Your task to perform on an android device: toggle airplane mode Image 0: 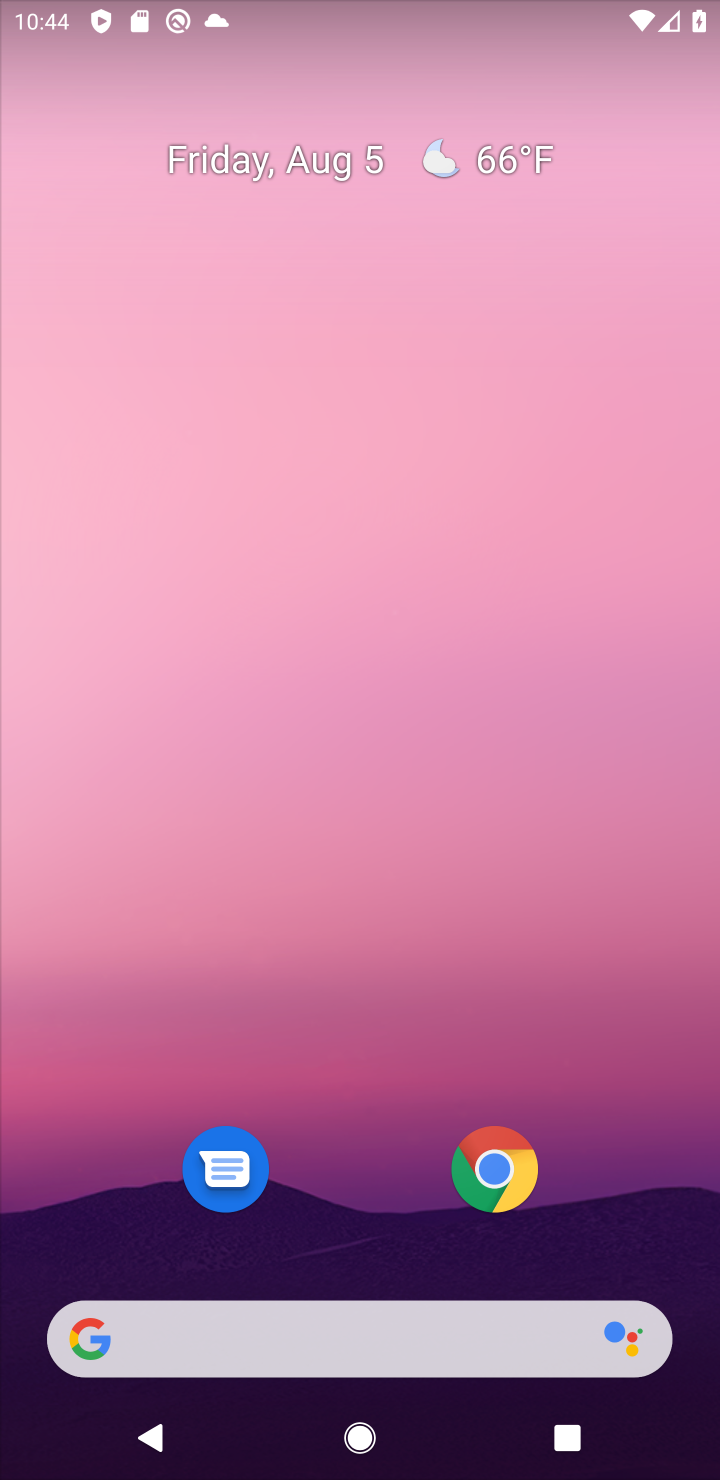
Step 0: drag from (651, 1213) to (567, 520)
Your task to perform on an android device: toggle airplane mode Image 1: 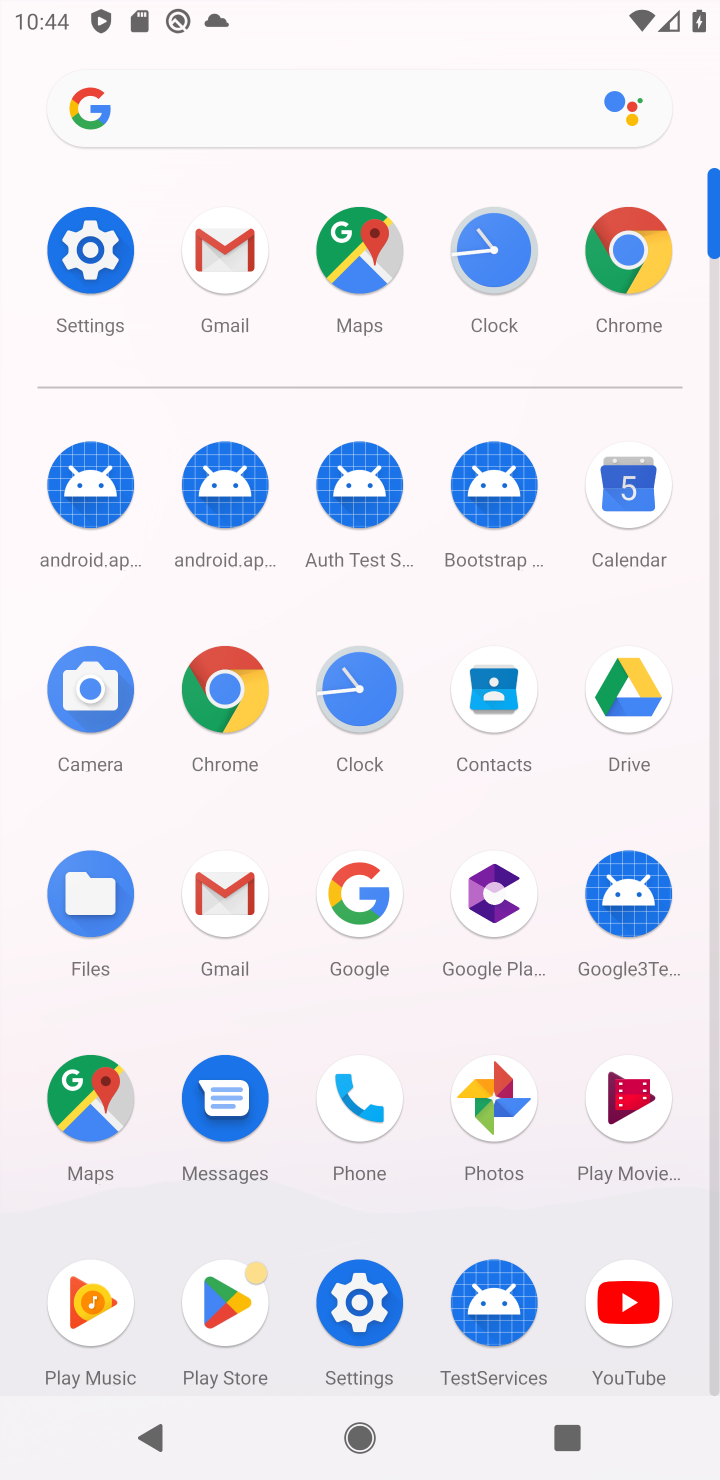
Step 1: click (360, 1306)
Your task to perform on an android device: toggle airplane mode Image 2: 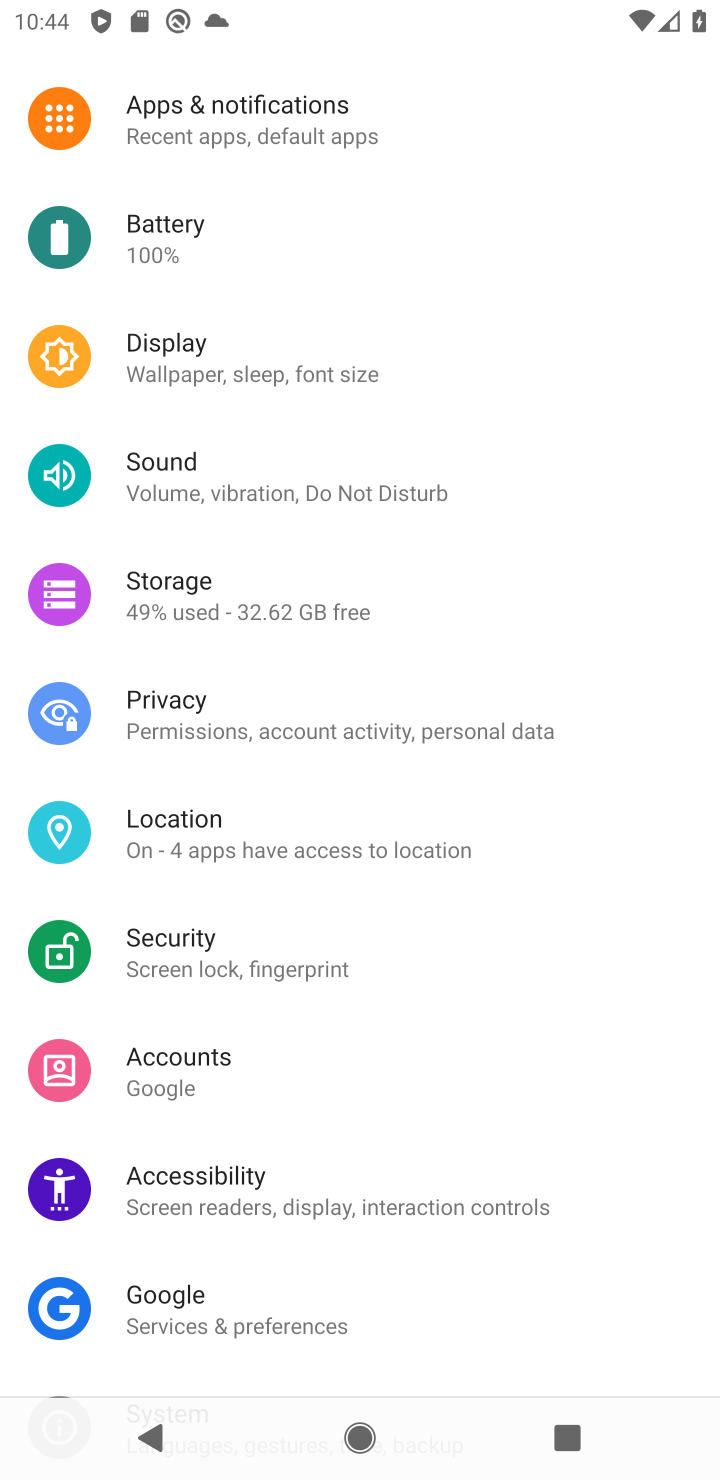
Step 2: drag from (529, 568) to (530, 877)
Your task to perform on an android device: toggle airplane mode Image 3: 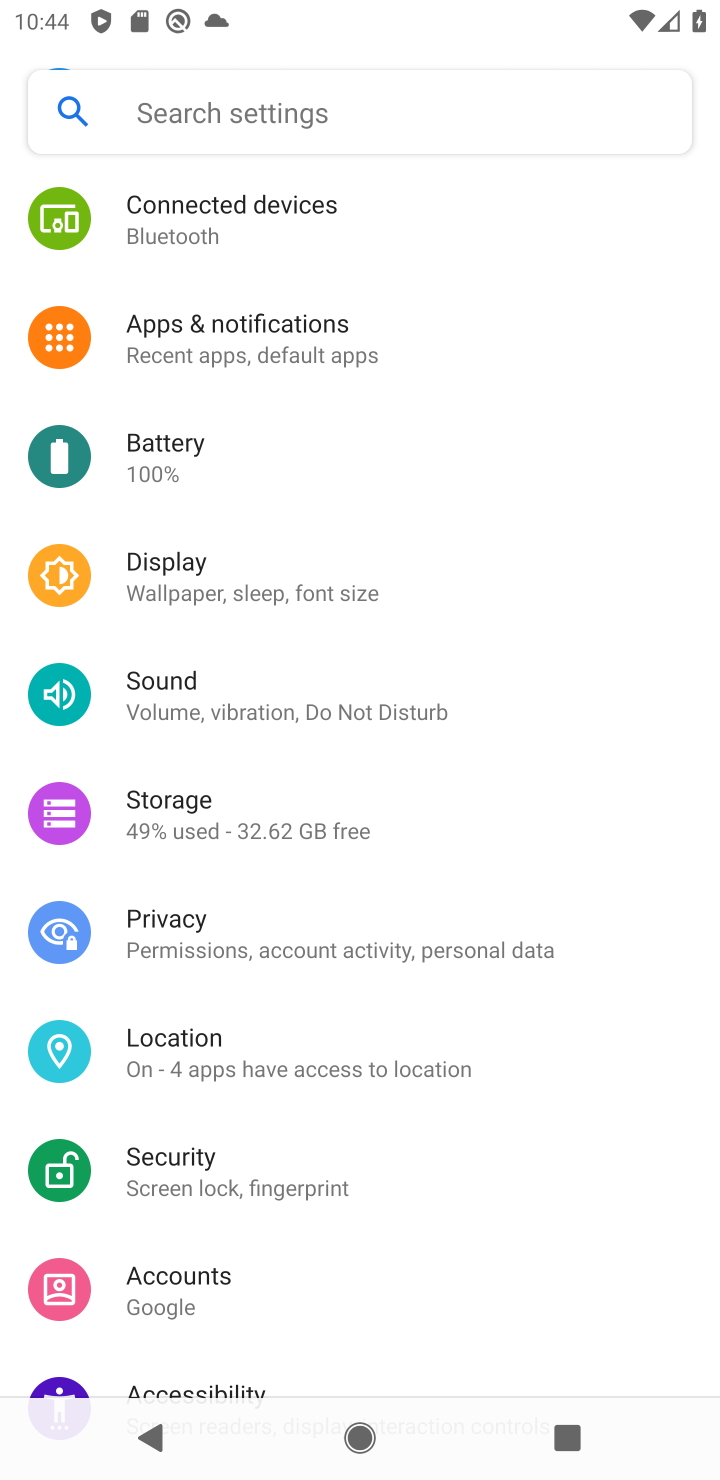
Step 3: drag from (435, 310) to (458, 795)
Your task to perform on an android device: toggle airplane mode Image 4: 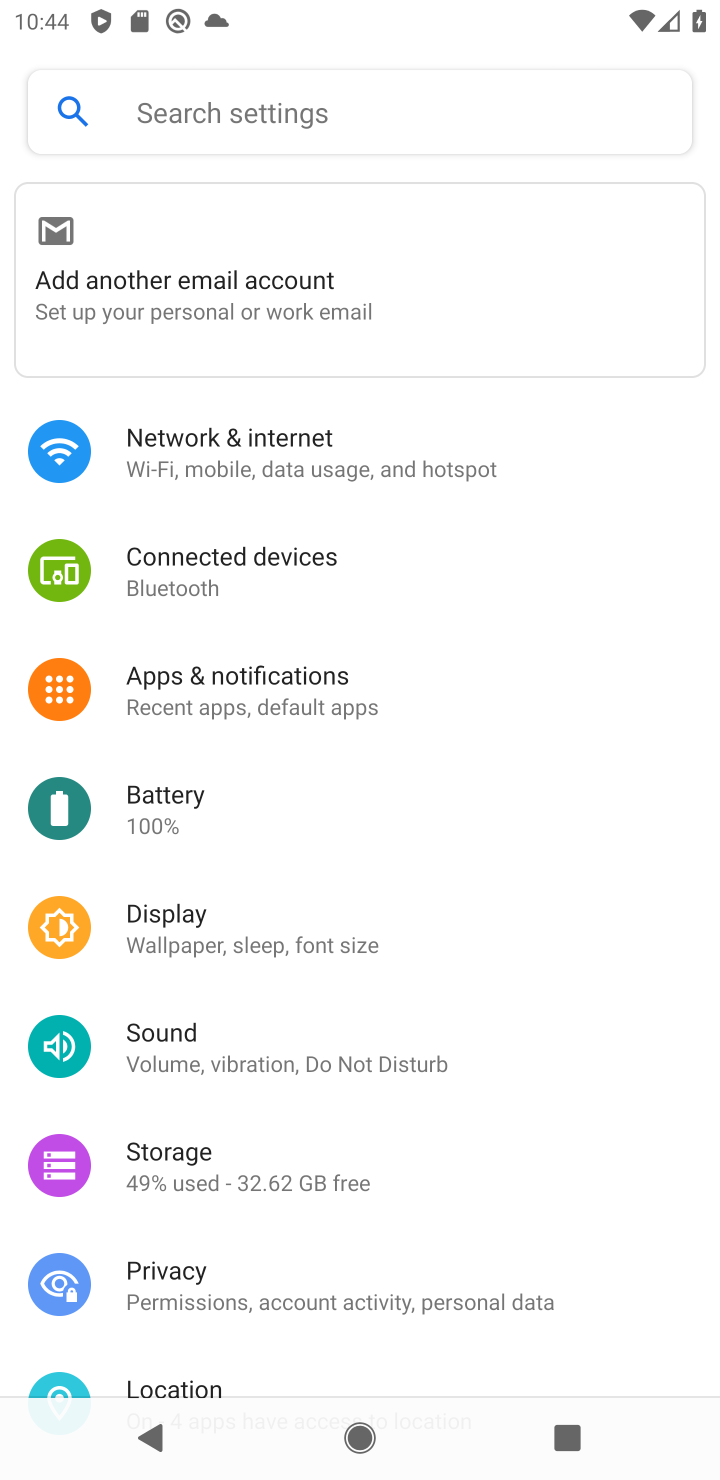
Step 4: click (168, 439)
Your task to perform on an android device: toggle airplane mode Image 5: 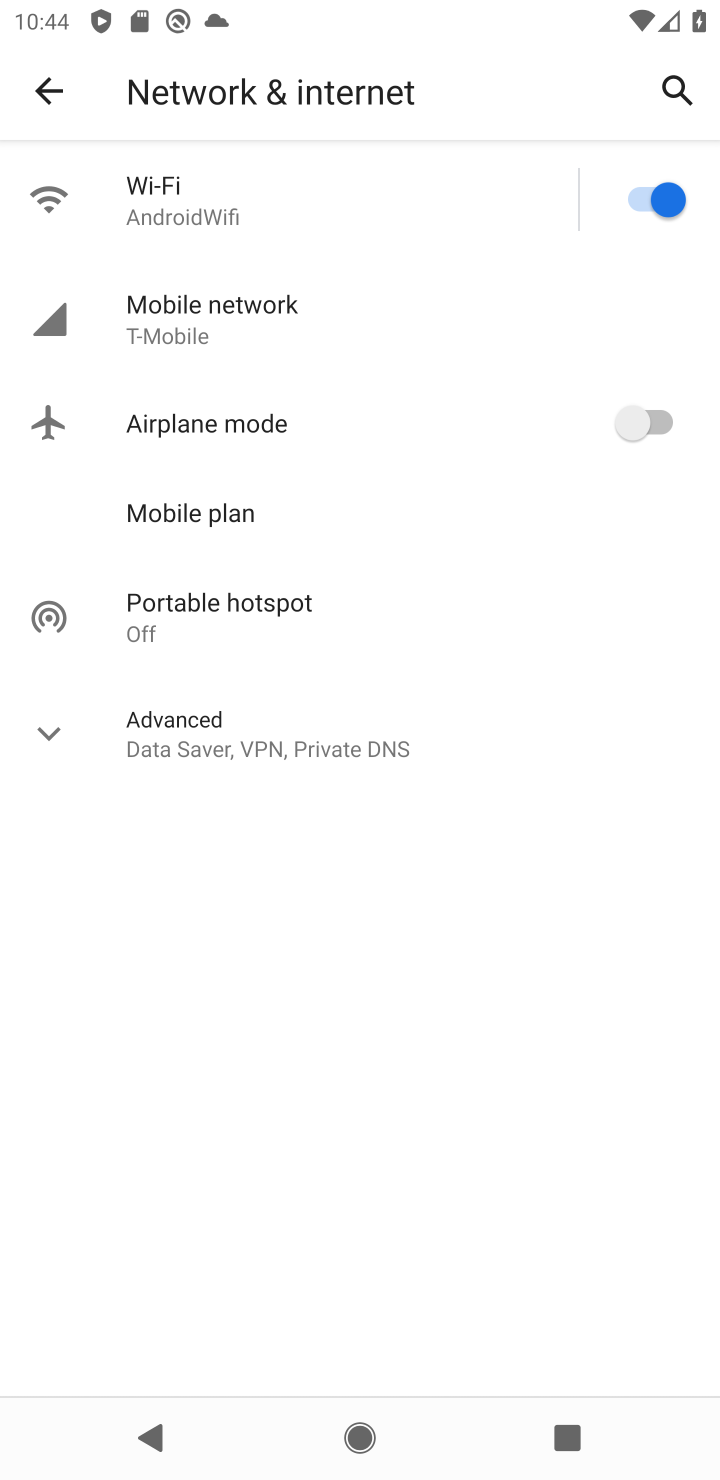
Step 5: click (654, 420)
Your task to perform on an android device: toggle airplane mode Image 6: 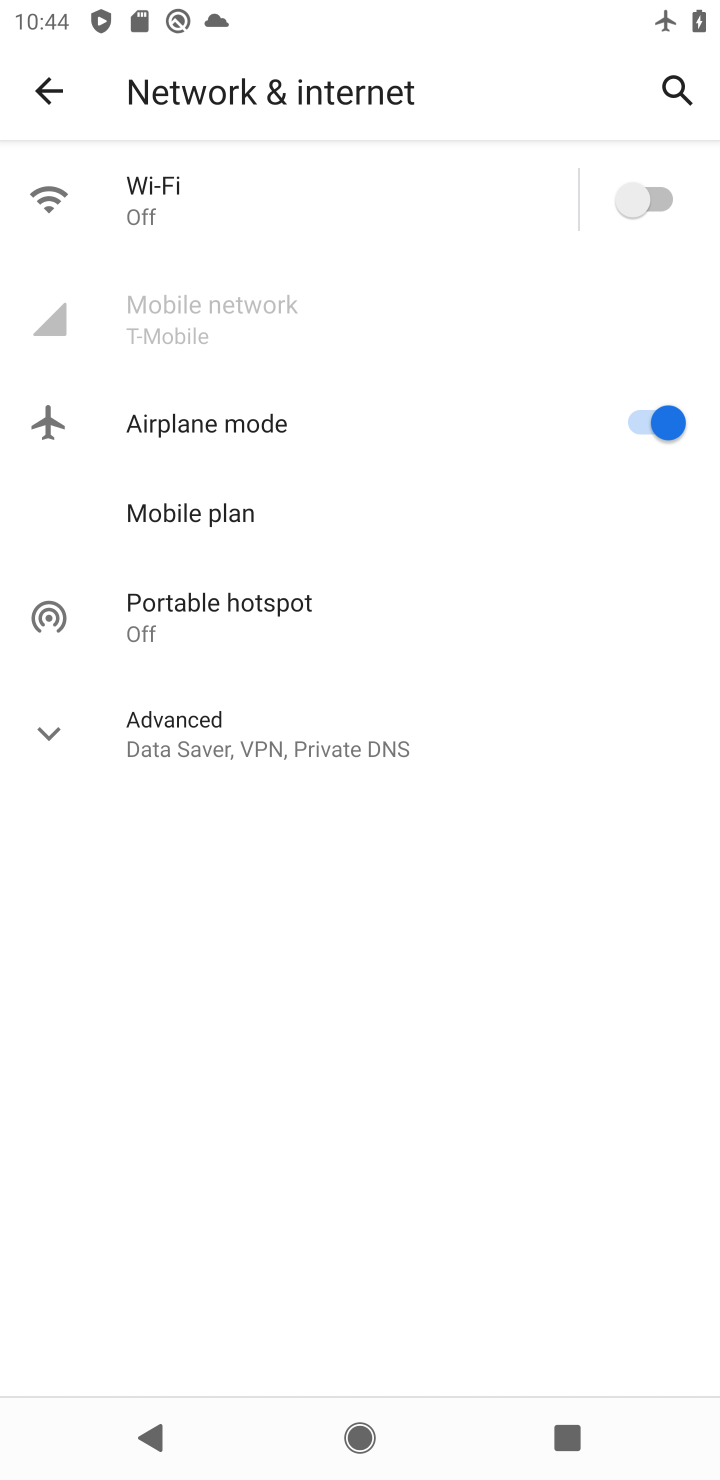
Step 6: task complete